Your task to perform on an android device: Go to battery settings Image 0: 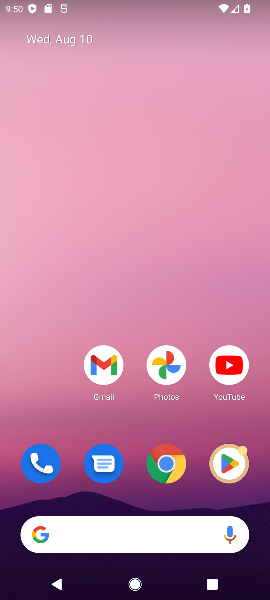
Step 0: drag from (18, 573) to (237, 180)
Your task to perform on an android device: Go to battery settings Image 1: 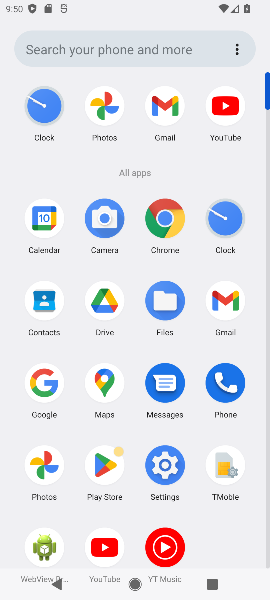
Step 1: click (171, 472)
Your task to perform on an android device: Go to battery settings Image 2: 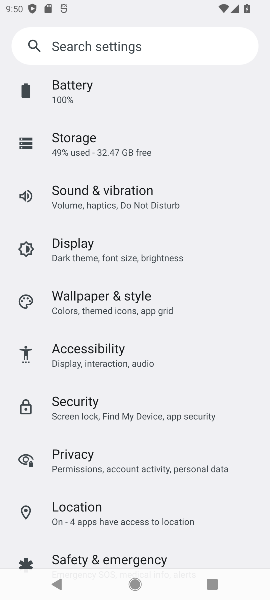
Step 2: click (60, 96)
Your task to perform on an android device: Go to battery settings Image 3: 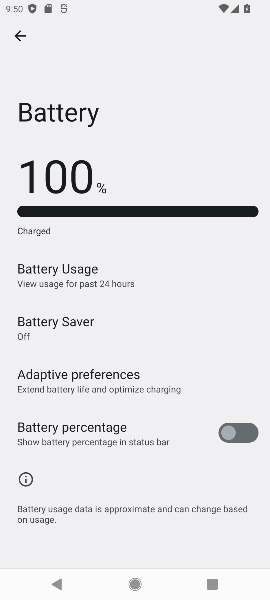
Step 3: task complete